Your task to perform on an android device: What's on my calendar today? Image 0: 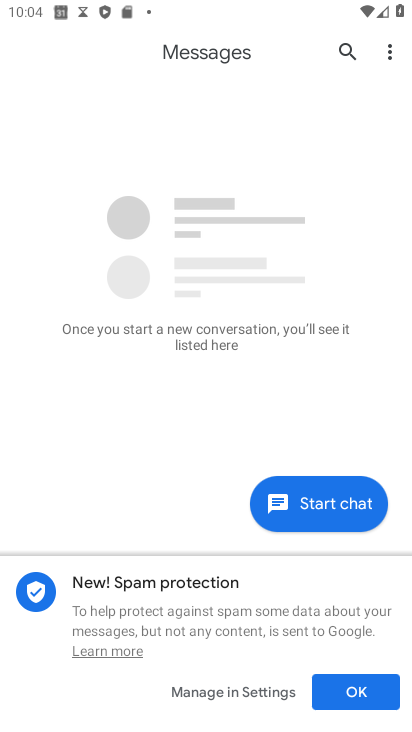
Step 0: press home button
Your task to perform on an android device: What's on my calendar today? Image 1: 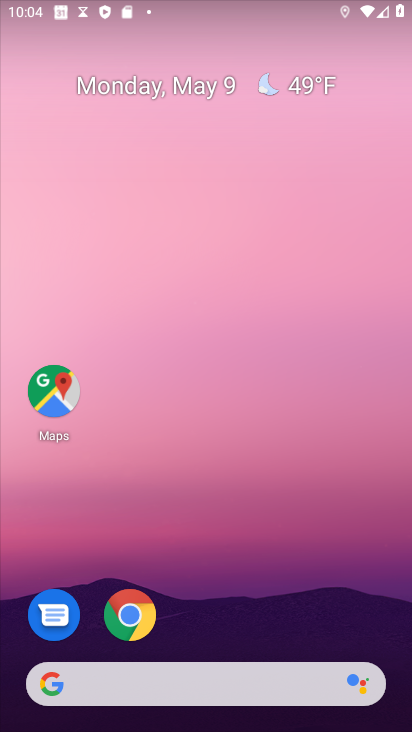
Step 1: drag from (218, 505) to (275, 59)
Your task to perform on an android device: What's on my calendar today? Image 2: 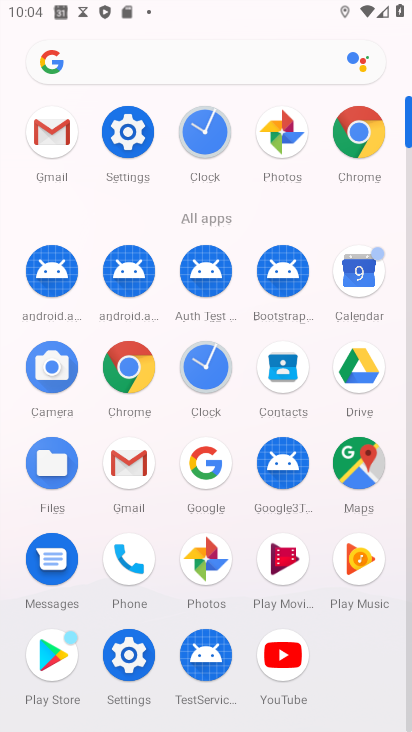
Step 2: click (371, 282)
Your task to perform on an android device: What's on my calendar today? Image 3: 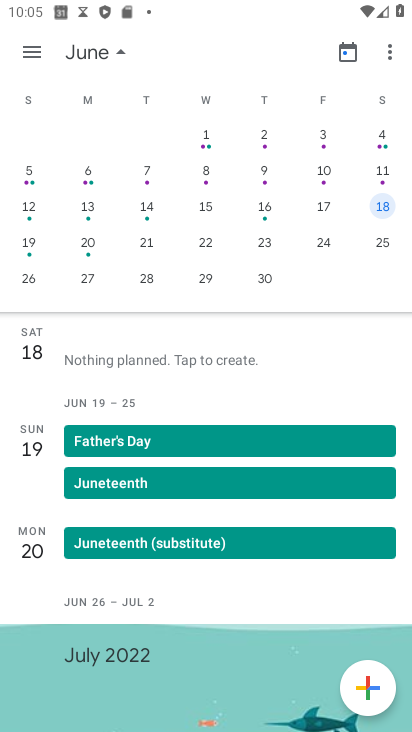
Step 3: drag from (83, 217) to (389, 220)
Your task to perform on an android device: What's on my calendar today? Image 4: 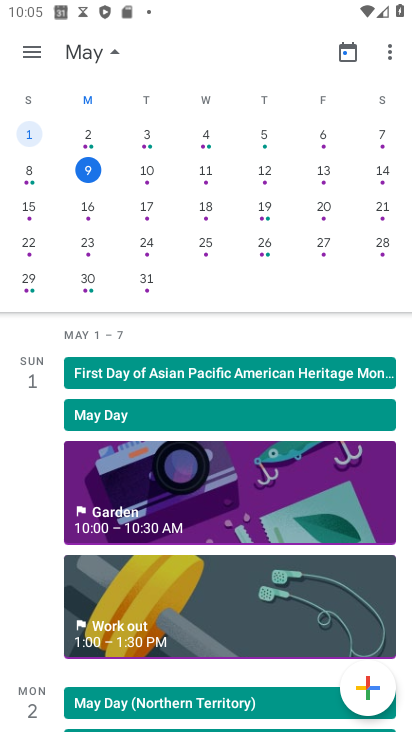
Step 4: click (87, 180)
Your task to perform on an android device: What's on my calendar today? Image 5: 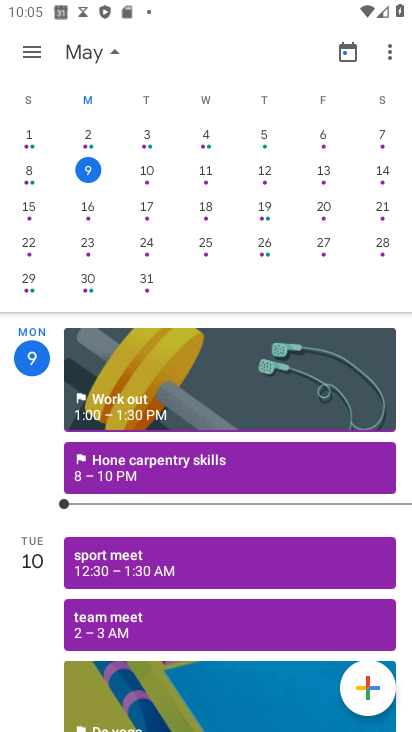
Step 5: task complete